Your task to perform on an android device: Do I have any events tomorrow? Image 0: 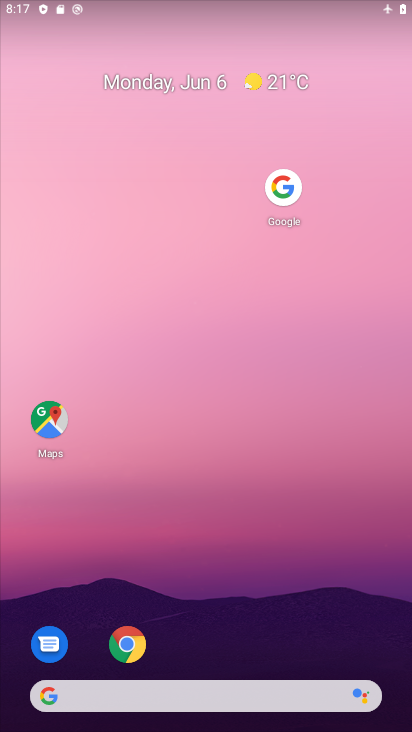
Step 0: drag from (217, 672) to (202, 66)
Your task to perform on an android device: Do I have any events tomorrow? Image 1: 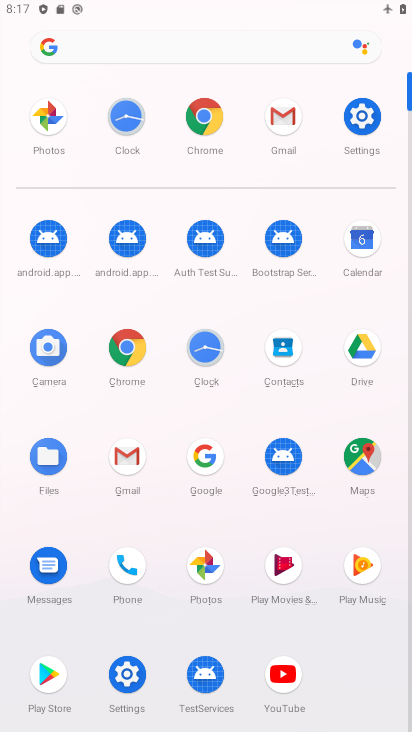
Step 1: click (358, 252)
Your task to perform on an android device: Do I have any events tomorrow? Image 2: 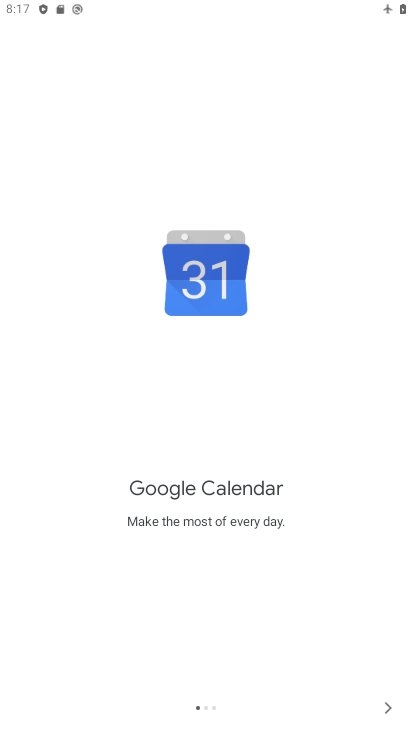
Step 2: click (393, 711)
Your task to perform on an android device: Do I have any events tomorrow? Image 3: 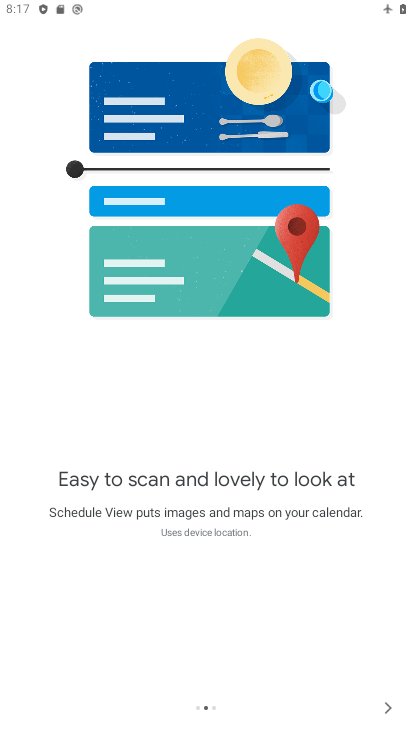
Step 3: click (392, 708)
Your task to perform on an android device: Do I have any events tomorrow? Image 4: 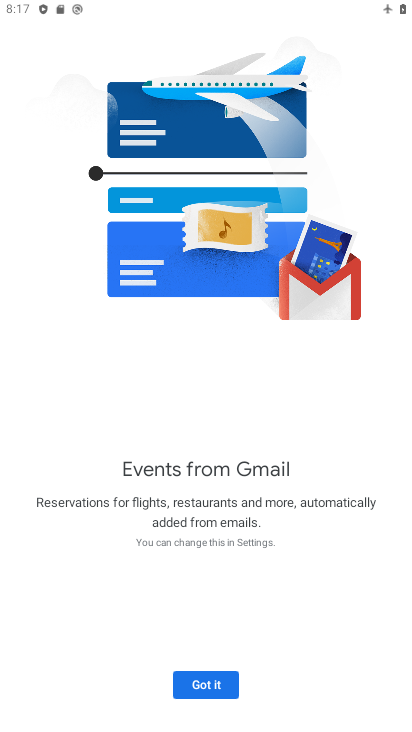
Step 4: click (209, 682)
Your task to perform on an android device: Do I have any events tomorrow? Image 5: 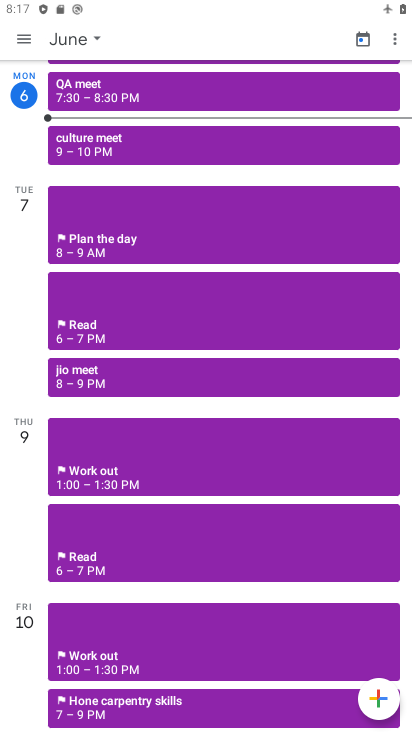
Step 5: click (27, 197)
Your task to perform on an android device: Do I have any events tomorrow? Image 6: 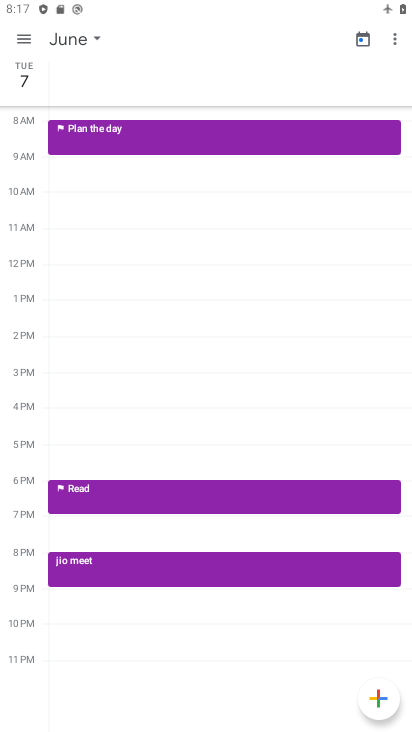
Step 6: task complete